Your task to perform on an android device: Go to CNN.com Image 0: 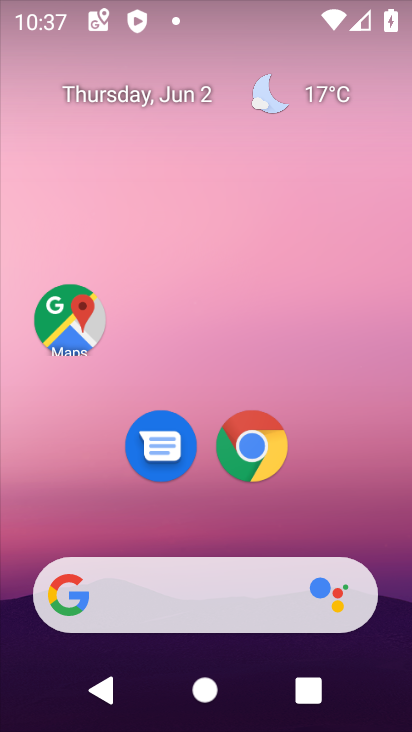
Step 0: drag from (365, 513) to (373, 139)
Your task to perform on an android device: Go to CNN.com Image 1: 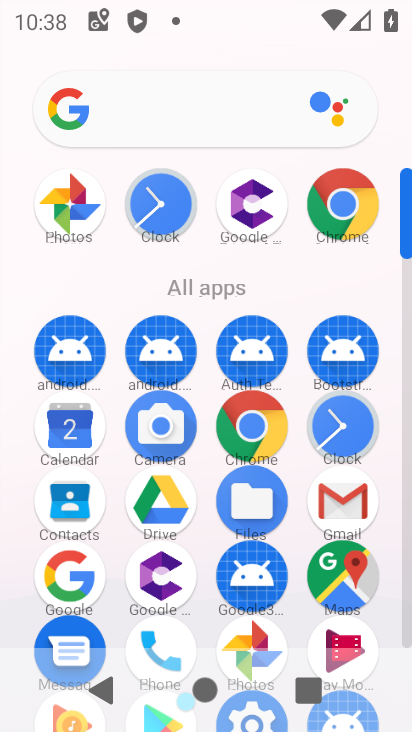
Step 1: click (269, 433)
Your task to perform on an android device: Go to CNN.com Image 2: 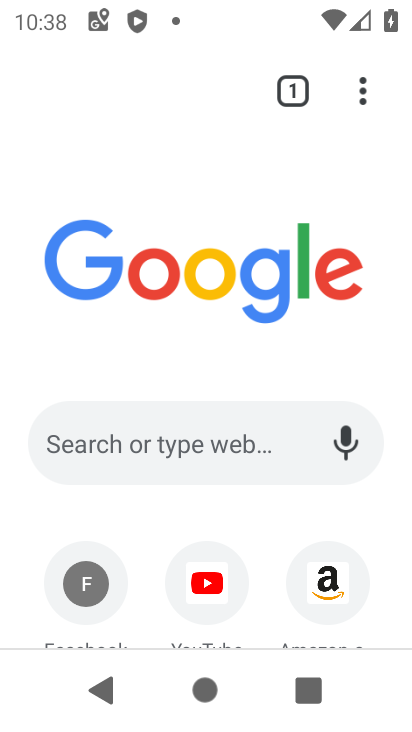
Step 2: click (238, 441)
Your task to perform on an android device: Go to CNN.com Image 3: 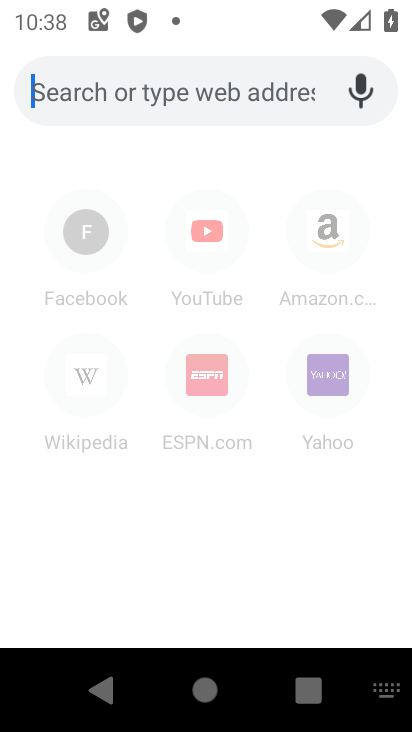
Step 3: type "cnn.com"
Your task to perform on an android device: Go to CNN.com Image 4: 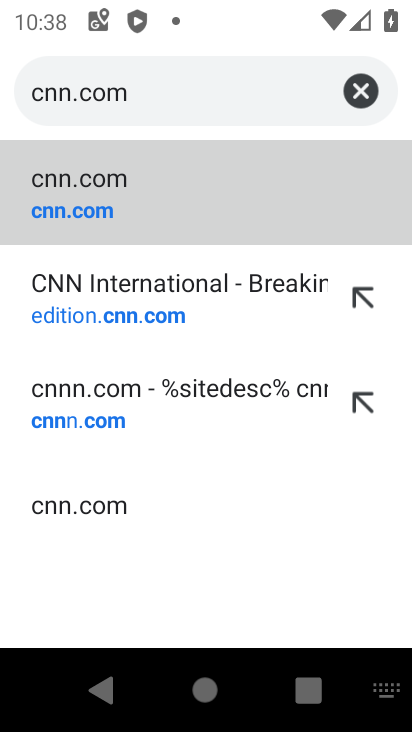
Step 4: click (132, 217)
Your task to perform on an android device: Go to CNN.com Image 5: 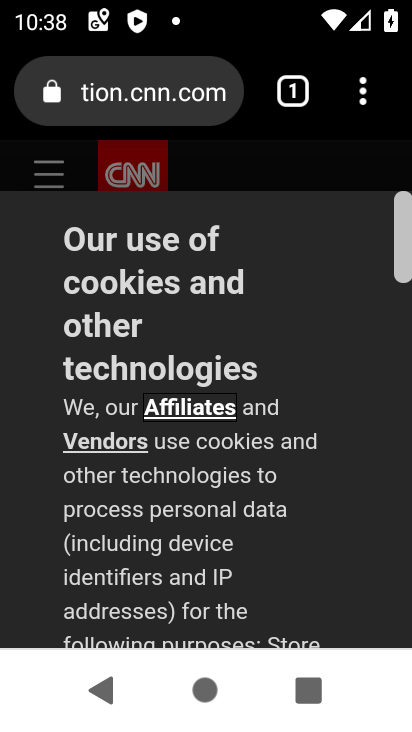
Step 5: task complete